Your task to perform on an android device: Go to Reddit.com Image 0: 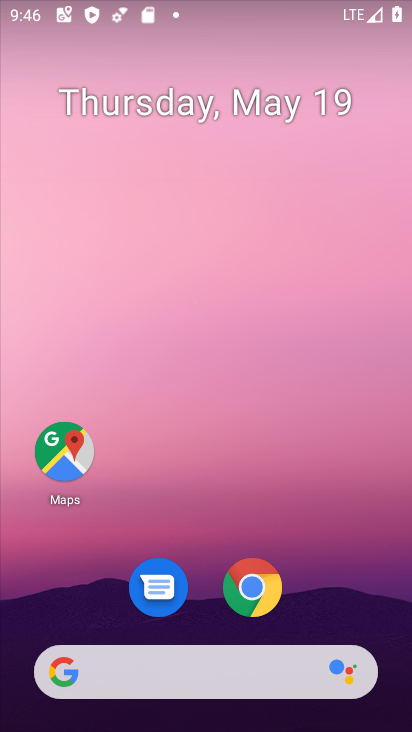
Step 0: click (120, 685)
Your task to perform on an android device: Go to Reddit.com Image 1: 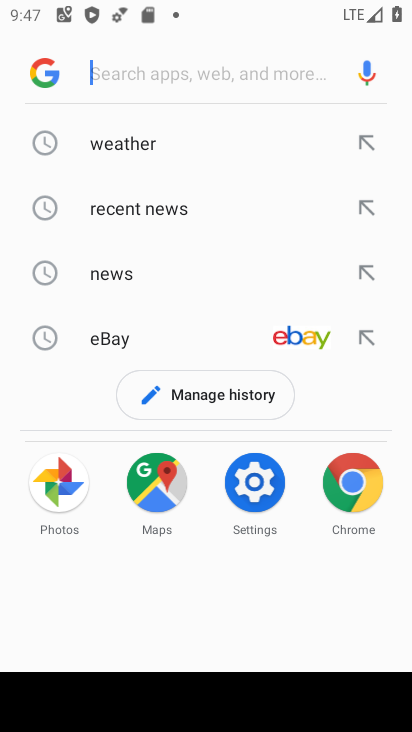
Step 1: type "reddit.com"
Your task to perform on an android device: Go to Reddit.com Image 2: 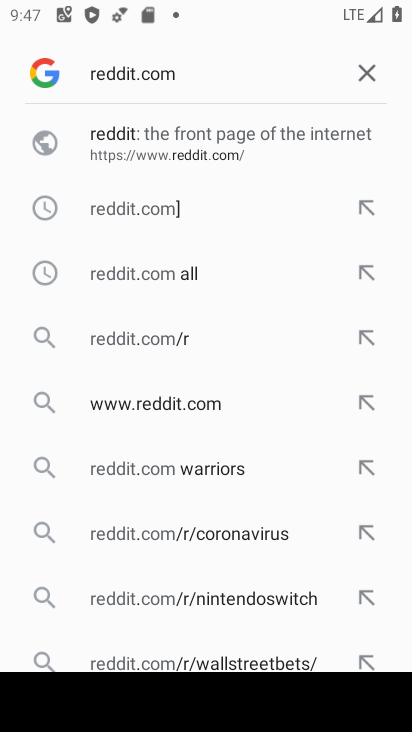
Step 2: click (183, 158)
Your task to perform on an android device: Go to Reddit.com Image 3: 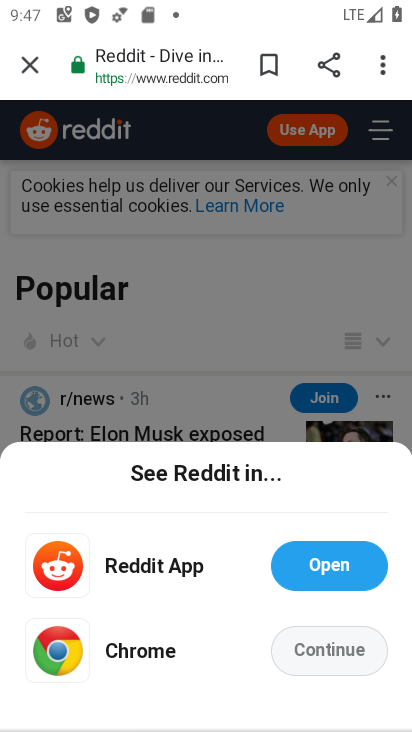
Step 3: task complete